Your task to perform on an android device: toggle translation in the chrome app Image 0: 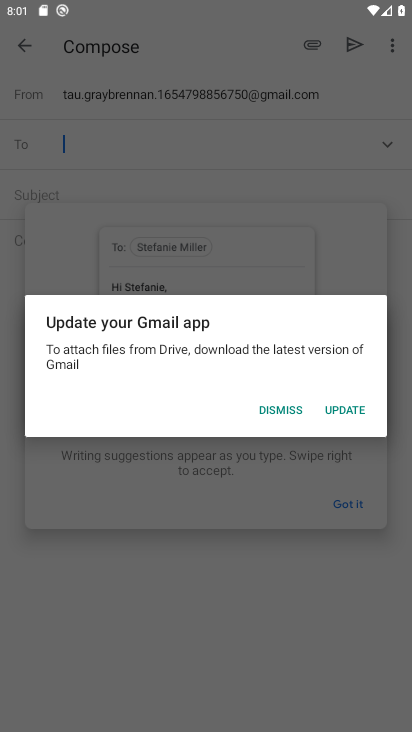
Step 0: press home button
Your task to perform on an android device: toggle translation in the chrome app Image 1: 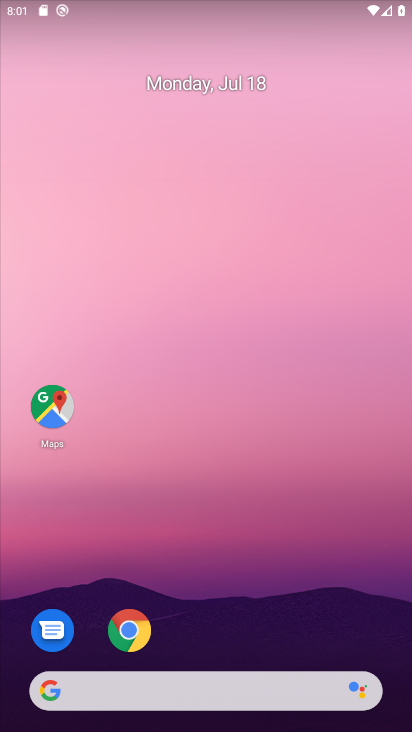
Step 1: click (146, 625)
Your task to perform on an android device: toggle translation in the chrome app Image 2: 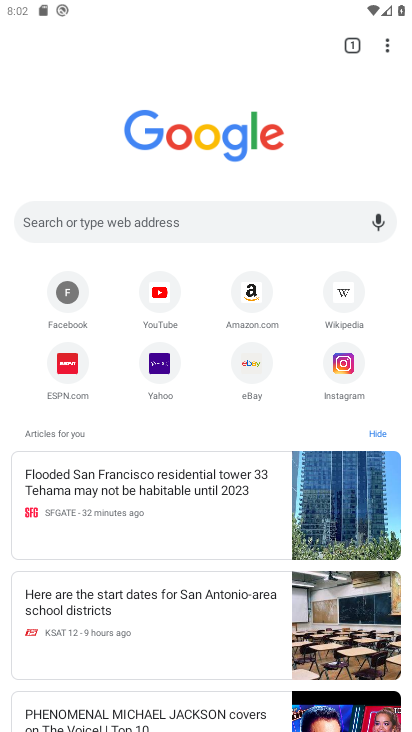
Step 2: click (388, 45)
Your task to perform on an android device: toggle translation in the chrome app Image 3: 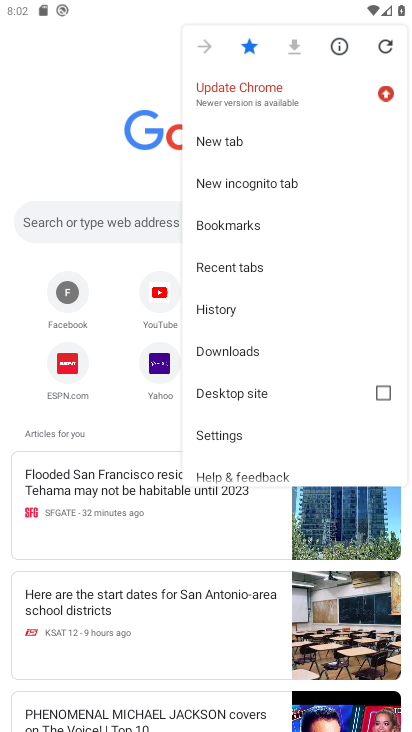
Step 3: click (251, 427)
Your task to perform on an android device: toggle translation in the chrome app Image 4: 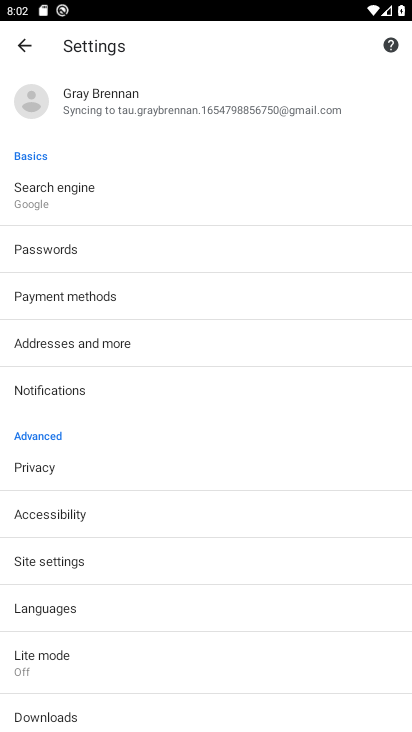
Step 4: click (100, 598)
Your task to perform on an android device: toggle translation in the chrome app Image 5: 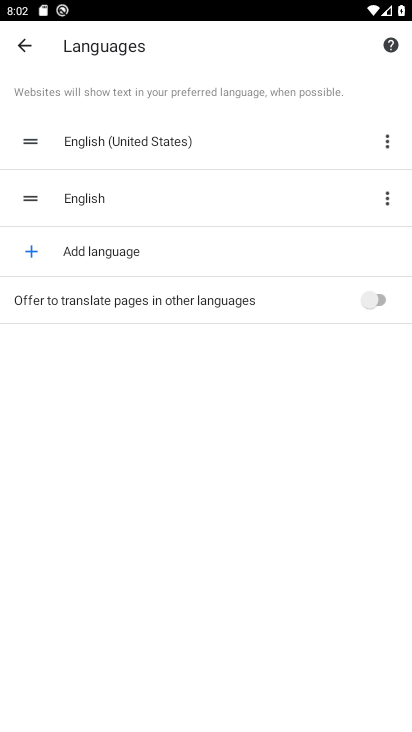
Step 5: click (379, 295)
Your task to perform on an android device: toggle translation in the chrome app Image 6: 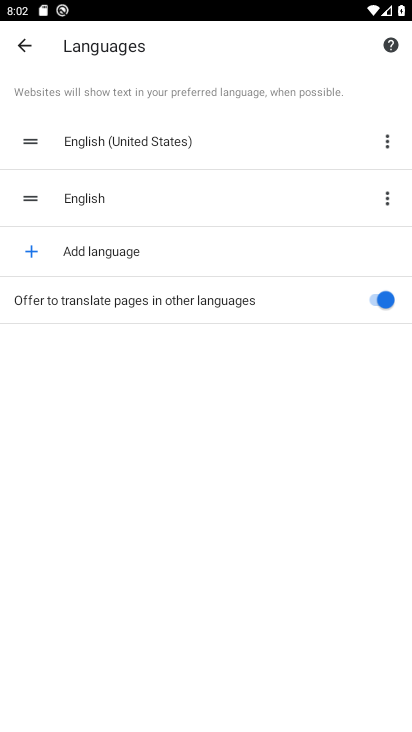
Step 6: task complete